Your task to perform on an android device: check google app version Image 0: 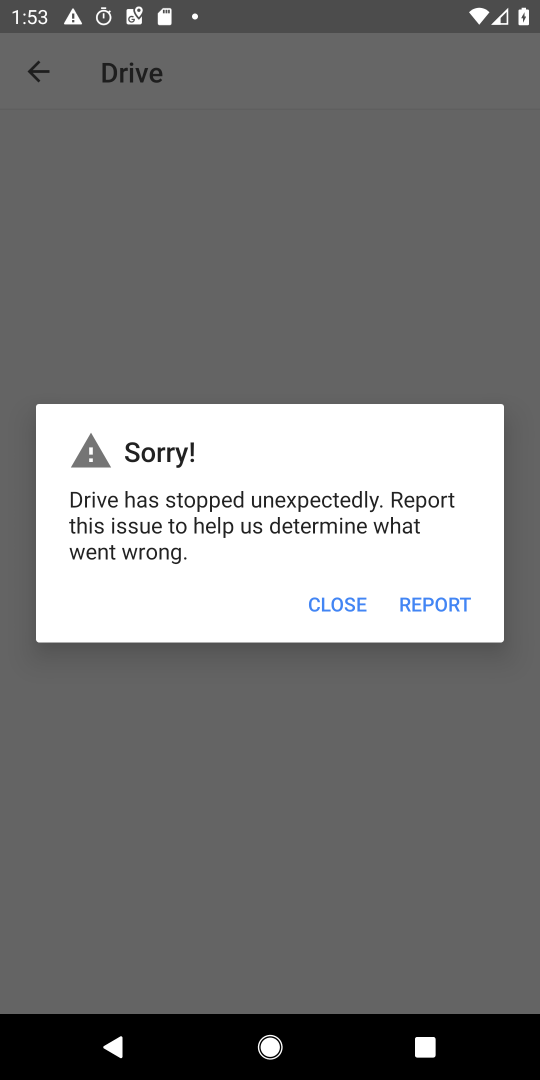
Step 0: press home button
Your task to perform on an android device: check google app version Image 1: 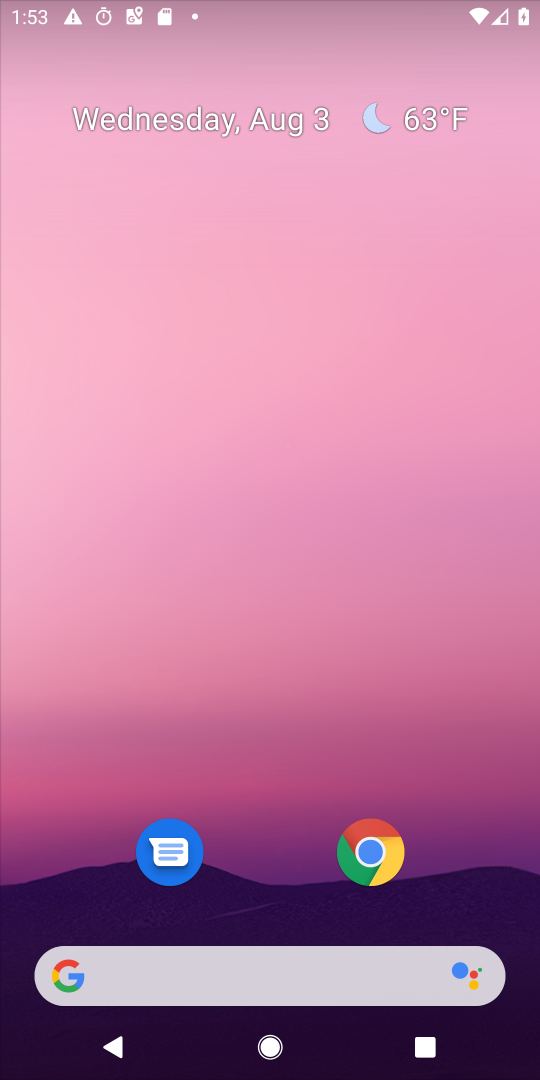
Step 1: drag from (511, 897) to (81, 49)
Your task to perform on an android device: check google app version Image 2: 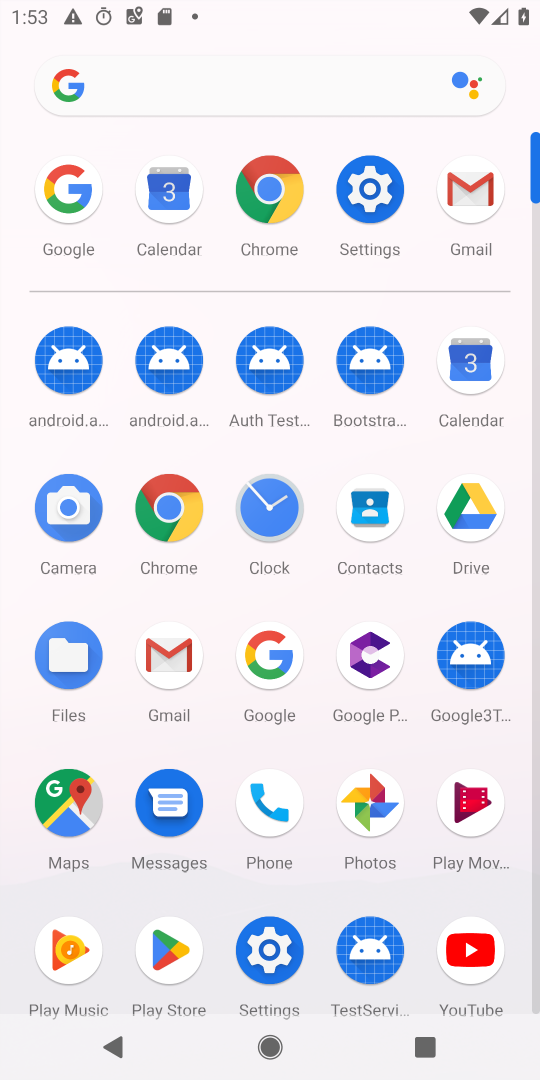
Step 2: click (276, 661)
Your task to perform on an android device: check google app version Image 3: 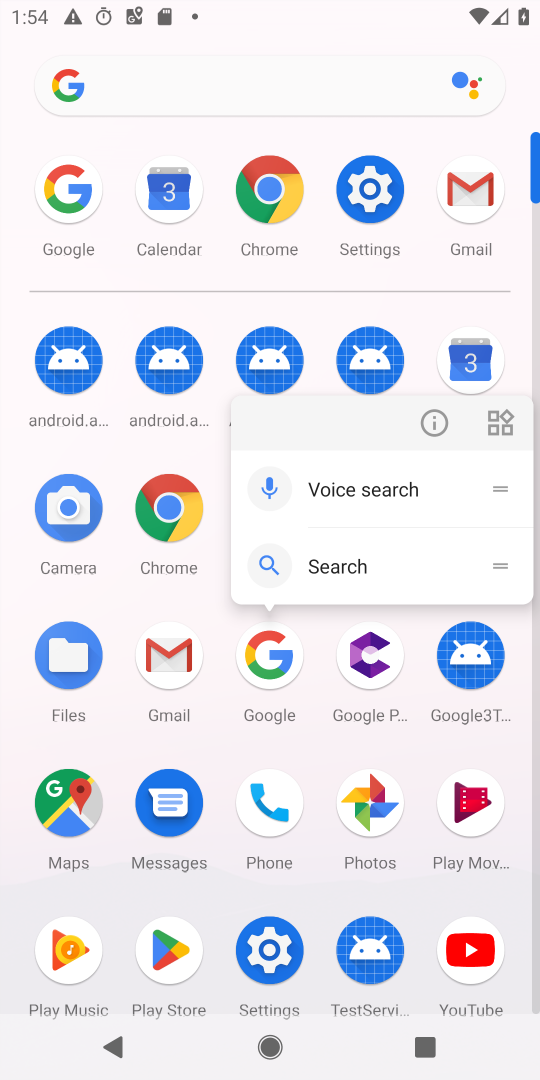
Step 3: click (429, 418)
Your task to perform on an android device: check google app version Image 4: 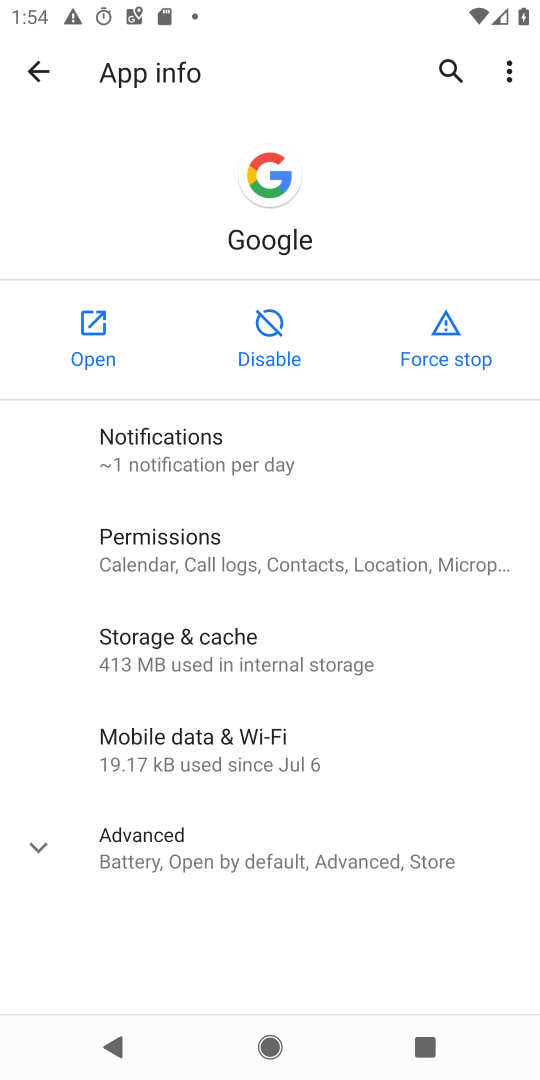
Step 4: click (53, 858)
Your task to perform on an android device: check google app version Image 5: 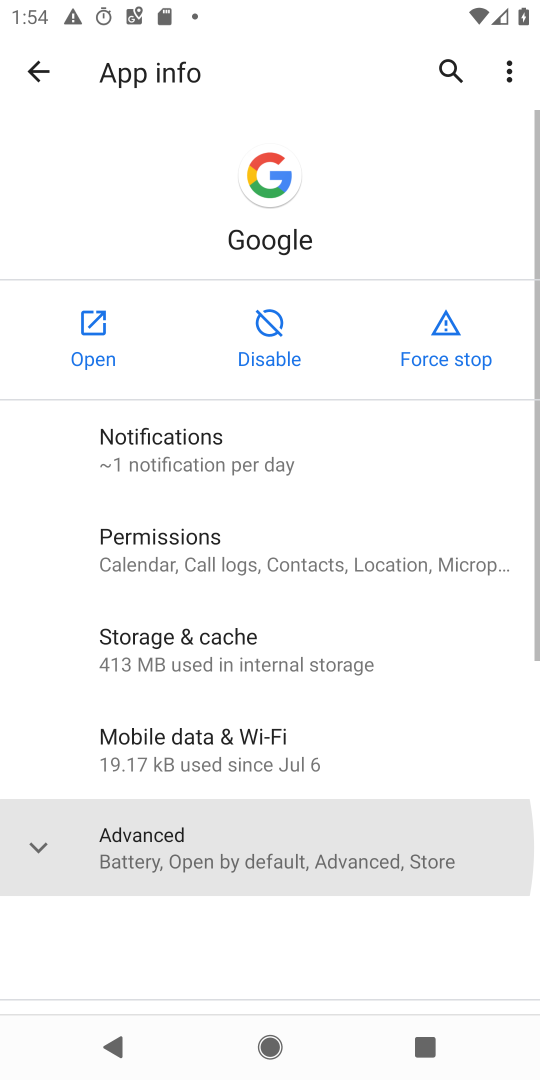
Step 5: task complete